Your task to perform on an android device: Search for "razer blade" on amazon.com, select the first entry, add it to the cart, then select checkout. Image 0: 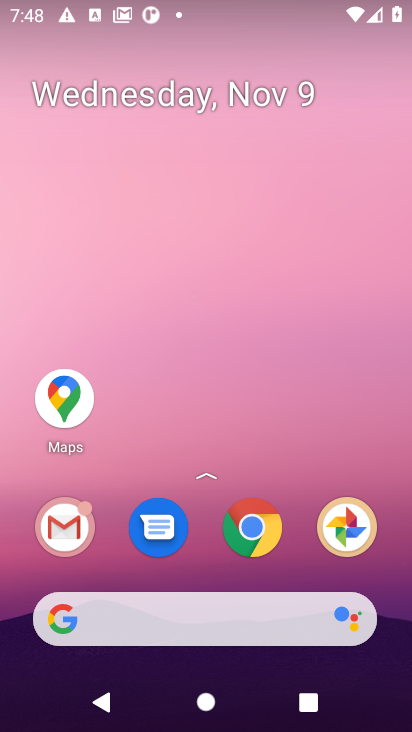
Step 0: click (242, 526)
Your task to perform on an android device: Search for "razer blade" on amazon.com, select the first entry, add it to the cart, then select checkout. Image 1: 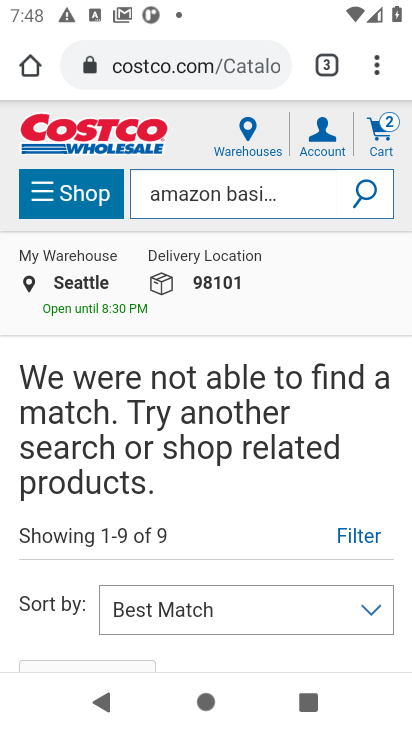
Step 1: click (169, 71)
Your task to perform on an android device: Search for "razer blade" on amazon.com, select the first entry, add it to the cart, then select checkout. Image 2: 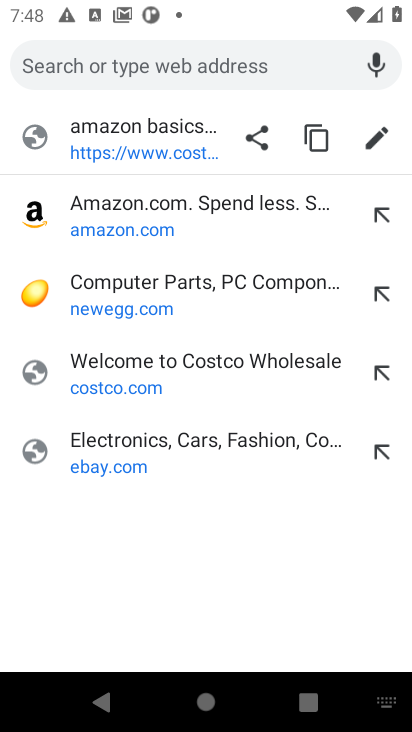
Step 2: click (118, 222)
Your task to perform on an android device: Search for "razer blade" on amazon.com, select the first entry, add it to the cart, then select checkout. Image 3: 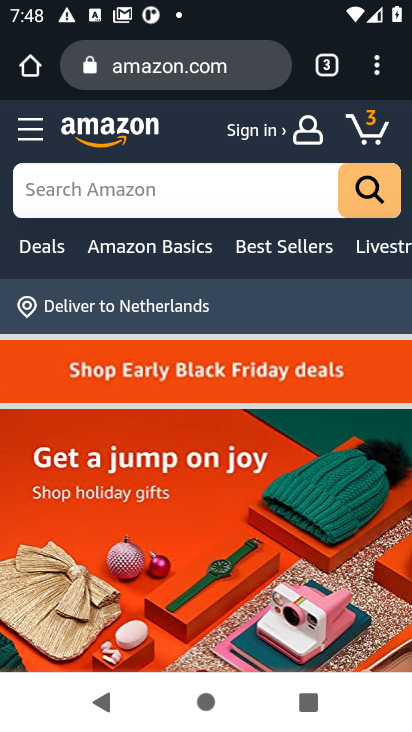
Step 3: click (116, 193)
Your task to perform on an android device: Search for "razer blade" on amazon.com, select the first entry, add it to the cart, then select checkout. Image 4: 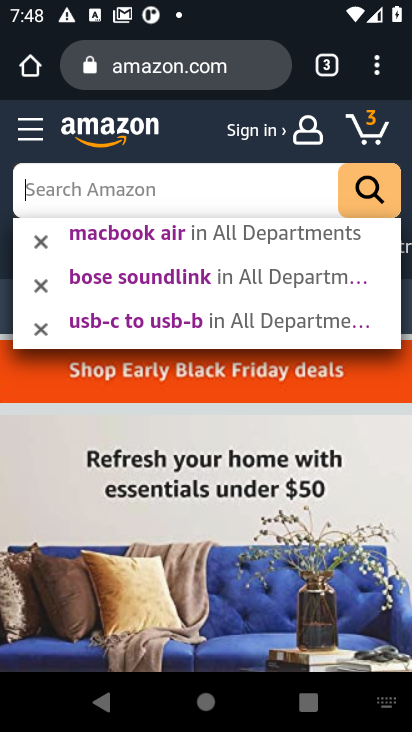
Step 4: type "razer blade"
Your task to perform on an android device: Search for "razer blade" on amazon.com, select the first entry, add it to the cart, then select checkout. Image 5: 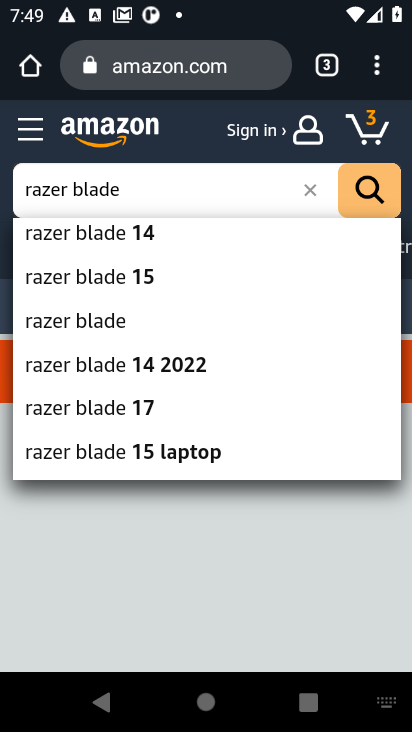
Step 5: click (92, 323)
Your task to perform on an android device: Search for "razer blade" on amazon.com, select the first entry, add it to the cart, then select checkout. Image 6: 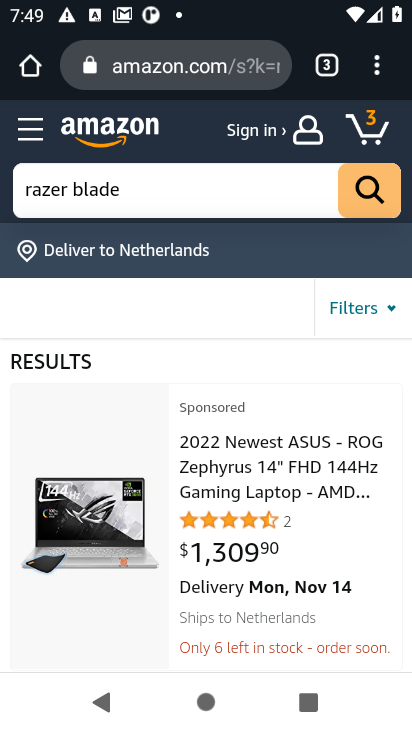
Step 6: task complete